Your task to perform on an android device: Go to accessibility settings Image 0: 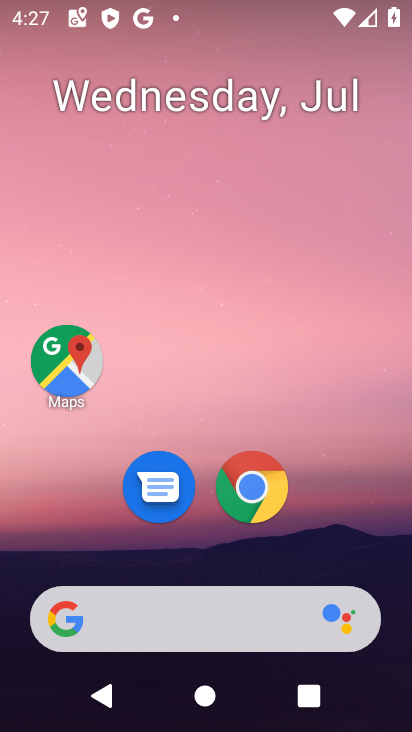
Step 0: drag from (196, 551) to (262, 8)
Your task to perform on an android device: Go to accessibility settings Image 1: 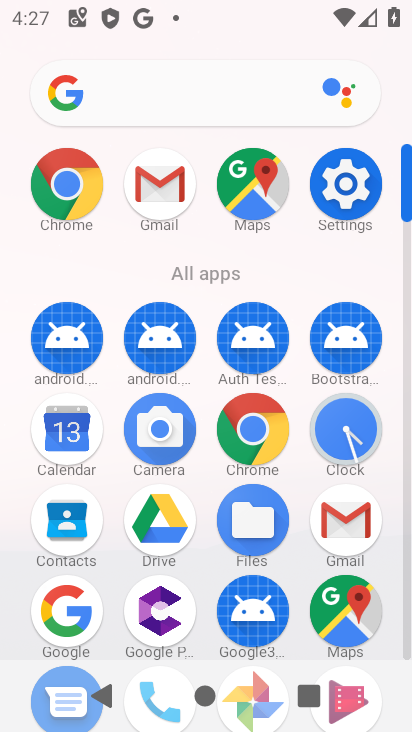
Step 1: click (349, 184)
Your task to perform on an android device: Go to accessibility settings Image 2: 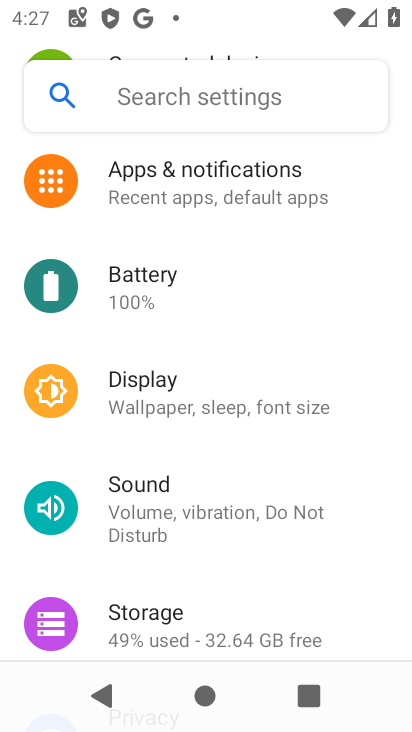
Step 2: drag from (166, 586) to (255, 35)
Your task to perform on an android device: Go to accessibility settings Image 3: 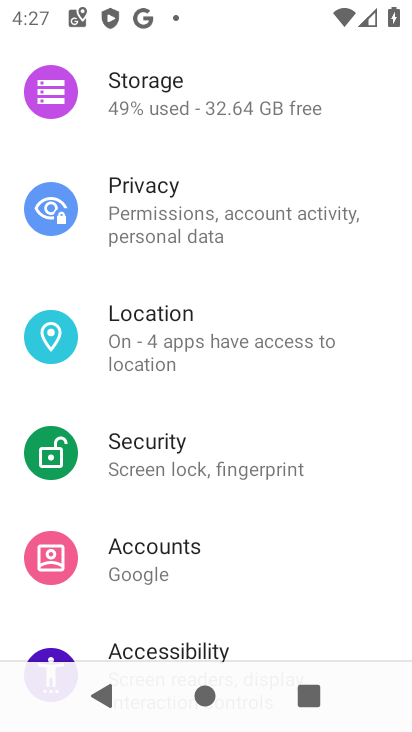
Step 3: drag from (212, 617) to (293, 158)
Your task to perform on an android device: Go to accessibility settings Image 4: 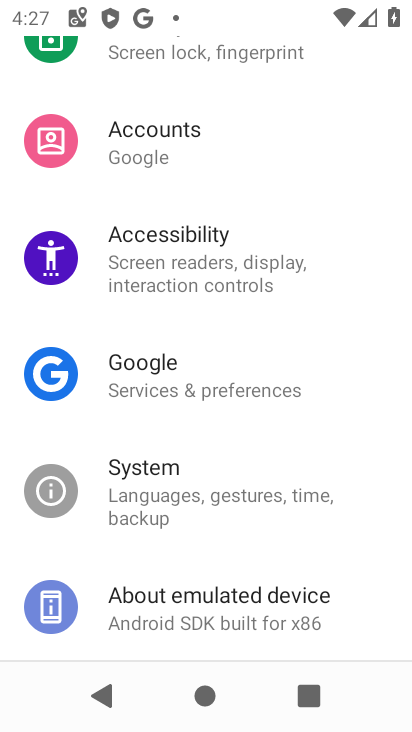
Step 4: click (185, 256)
Your task to perform on an android device: Go to accessibility settings Image 5: 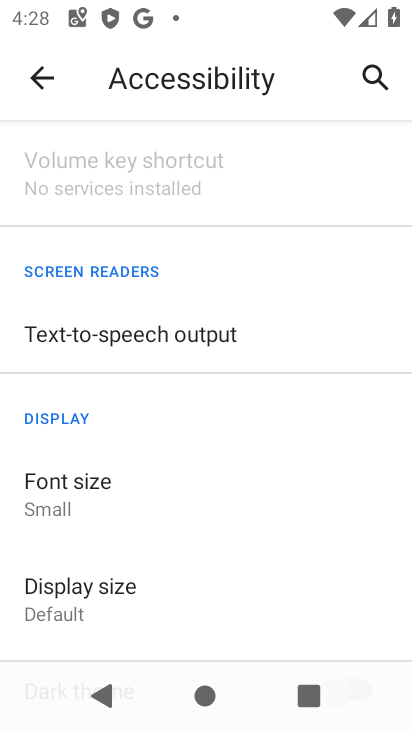
Step 5: task complete